Your task to perform on an android device: turn on improve location accuracy Image 0: 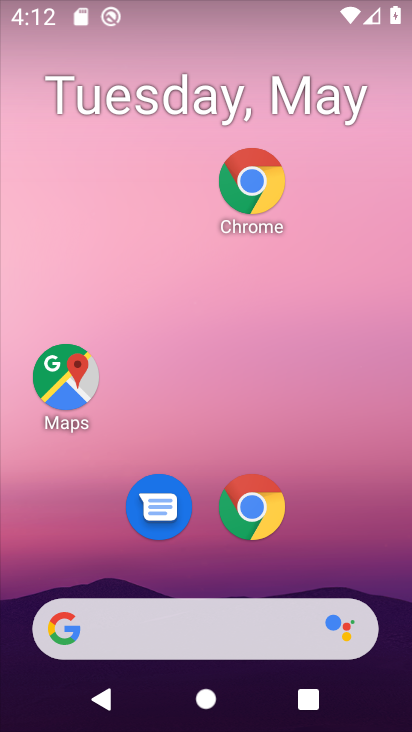
Step 0: drag from (375, 538) to (353, 82)
Your task to perform on an android device: turn on improve location accuracy Image 1: 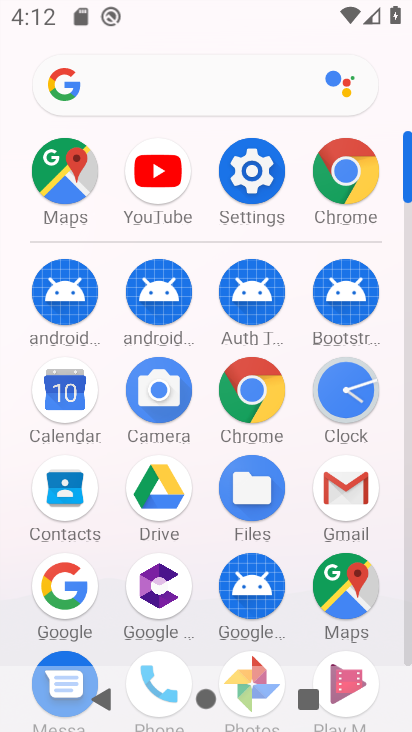
Step 1: click (253, 168)
Your task to perform on an android device: turn on improve location accuracy Image 2: 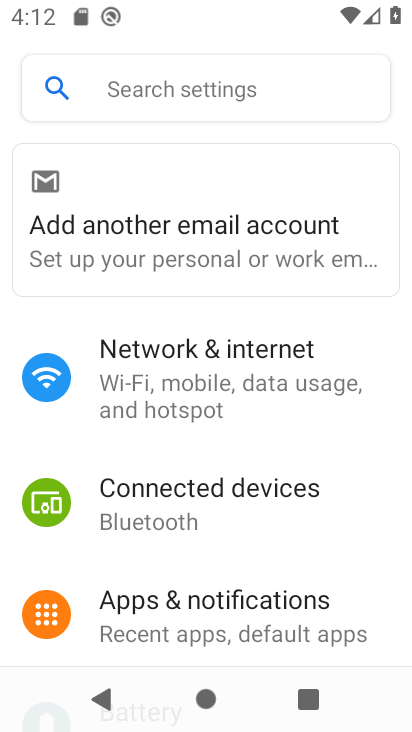
Step 2: drag from (328, 547) to (357, 204)
Your task to perform on an android device: turn on improve location accuracy Image 3: 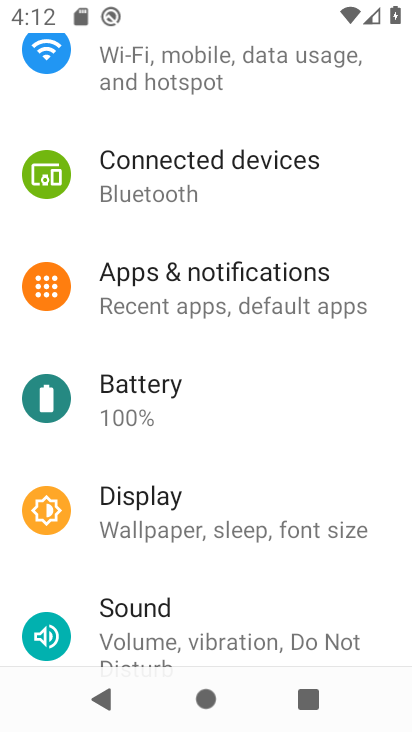
Step 3: drag from (236, 539) to (247, 186)
Your task to perform on an android device: turn on improve location accuracy Image 4: 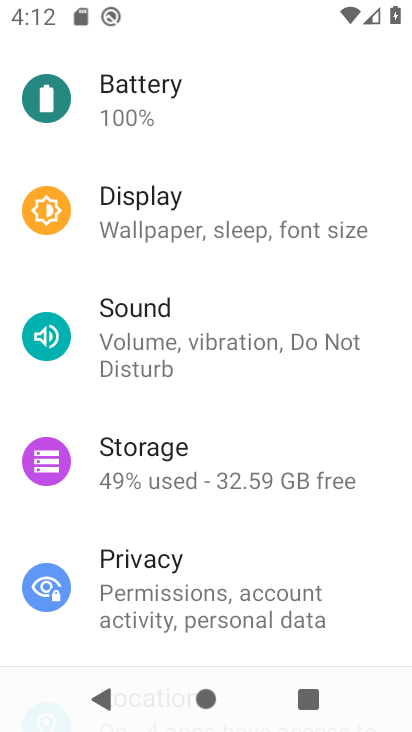
Step 4: drag from (281, 632) to (281, 166)
Your task to perform on an android device: turn on improve location accuracy Image 5: 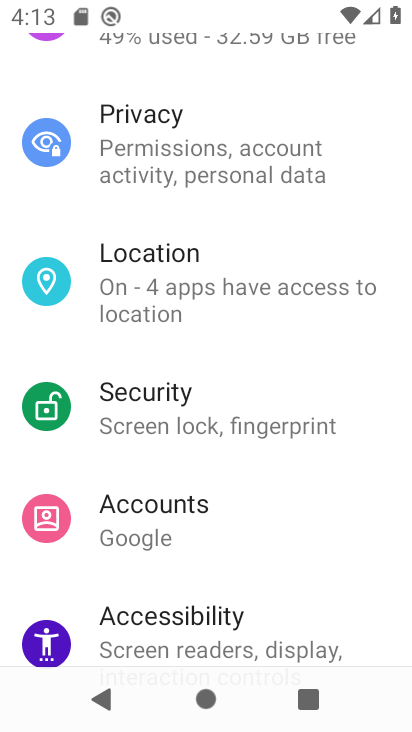
Step 5: click (161, 291)
Your task to perform on an android device: turn on improve location accuracy Image 6: 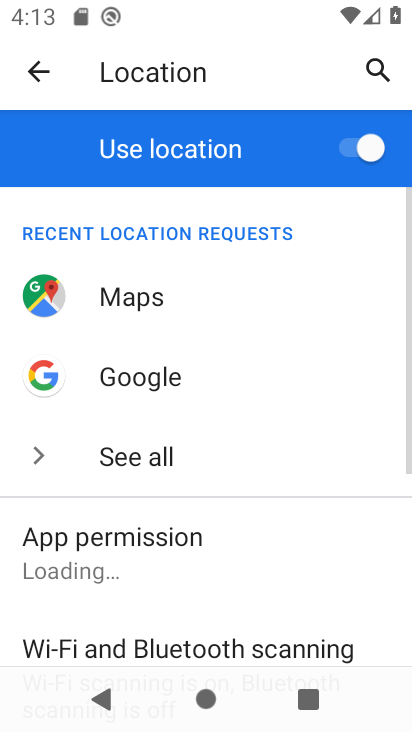
Step 6: drag from (193, 593) to (207, 278)
Your task to perform on an android device: turn on improve location accuracy Image 7: 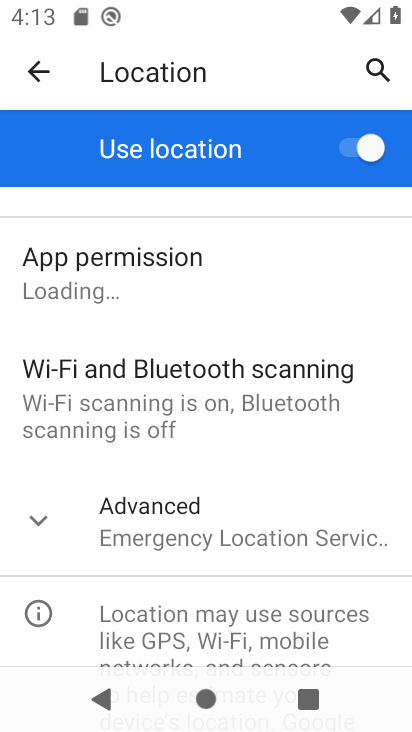
Step 7: drag from (176, 651) to (192, 371)
Your task to perform on an android device: turn on improve location accuracy Image 8: 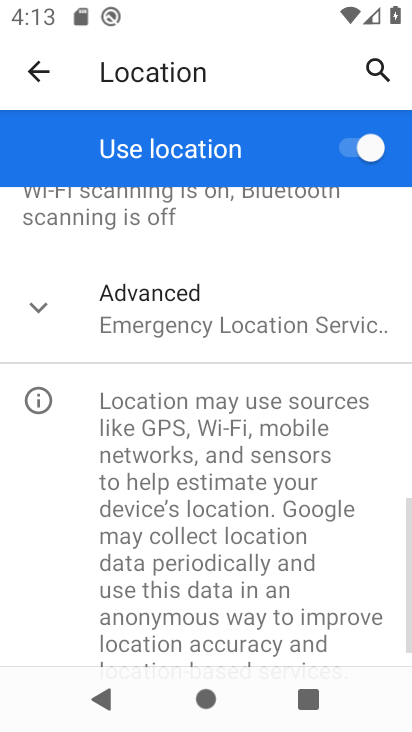
Step 8: click (172, 531)
Your task to perform on an android device: turn on improve location accuracy Image 9: 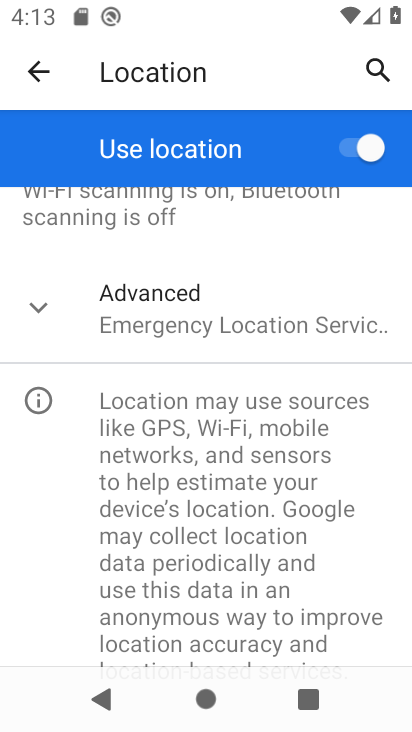
Step 9: click (162, 306)
Your task to perform on an android device: turn on improve location accuracy Image 10: 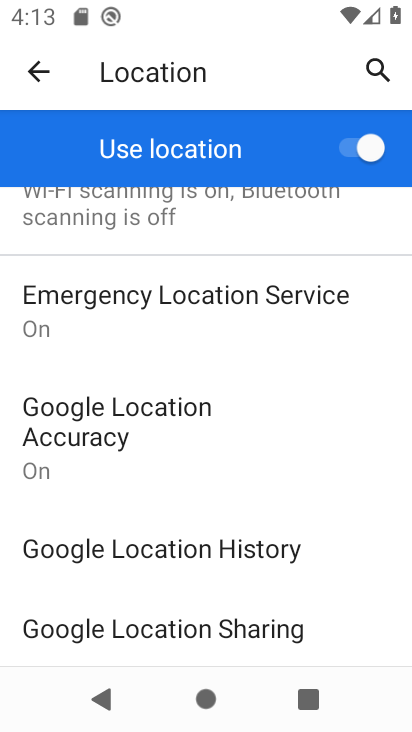
Step 10: drag from (270, 599) to (281, 293)
Your task to perform on an android device: turn on improve location accuracy Image 11: 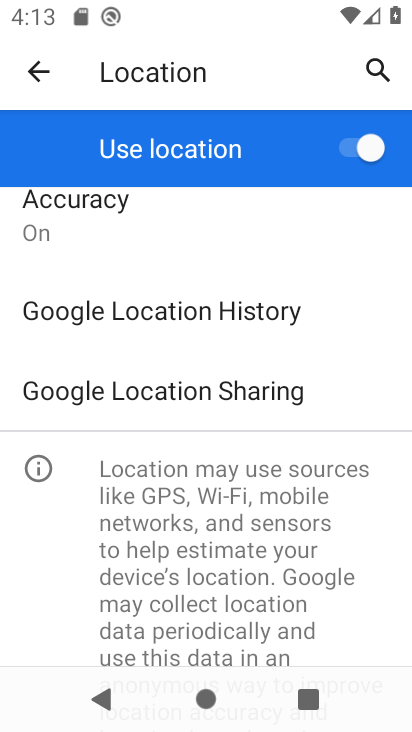
Step 11: drag from (276, 360) to (264, 678)
Your task to perform on an android device: turn on improve location accuracy Image 12: 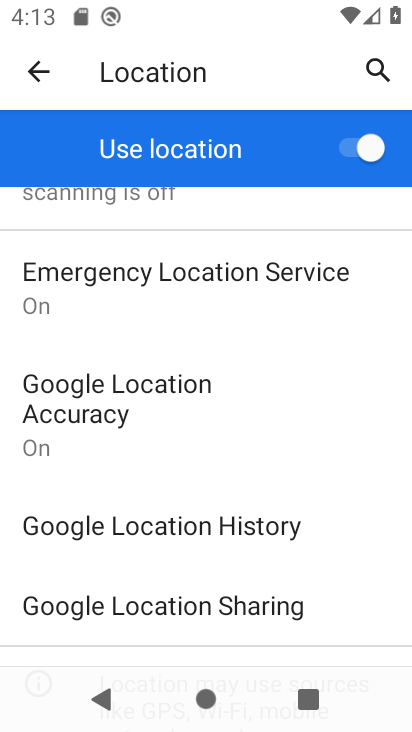
Step 12: click (80, 411)
Your task to perform on an android device: turn on improve location accuracy Image 13: 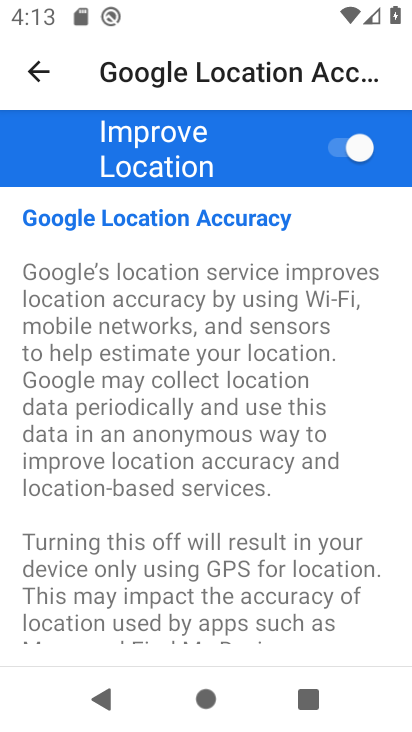
Step 13: task complete